Your task to perform on an android device: change the upload size in google photos Image 0: 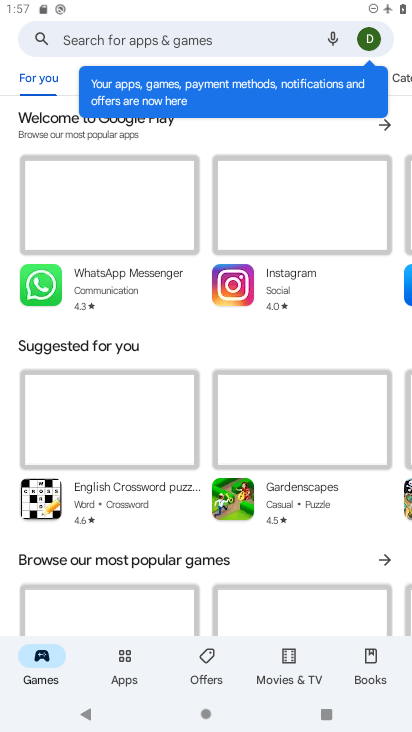
Step 0: press home button
Your task to perform on an android device: change the upload size in google photos Image 1: 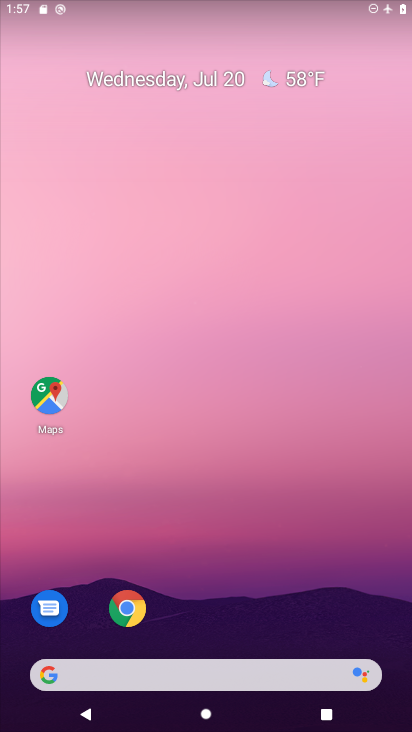
Step 1: drag from (233, 727) to (233, 139)
Your task to perform on an android device: change the upload size in google photos Image 2: 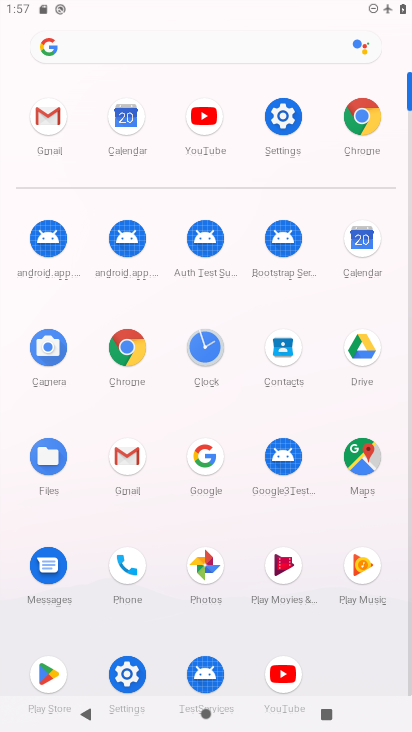
Step 2: click (200, 563)
Your task to perform on an android device: change the upload size in google photos Image 3: 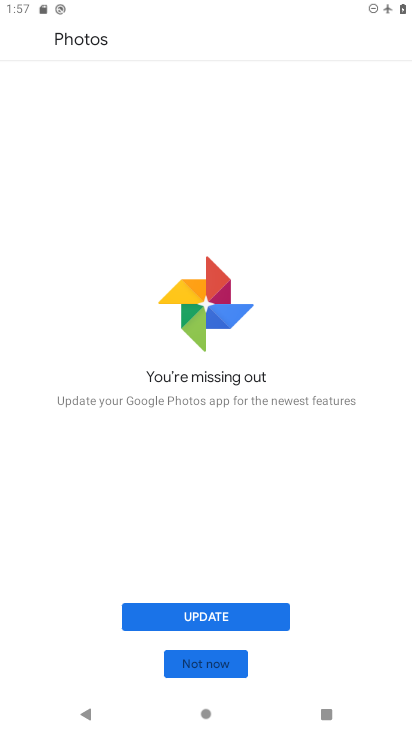
Step 3: task complete